Your task to perform on an android device: Show me popular games on the Play Store Image 0: 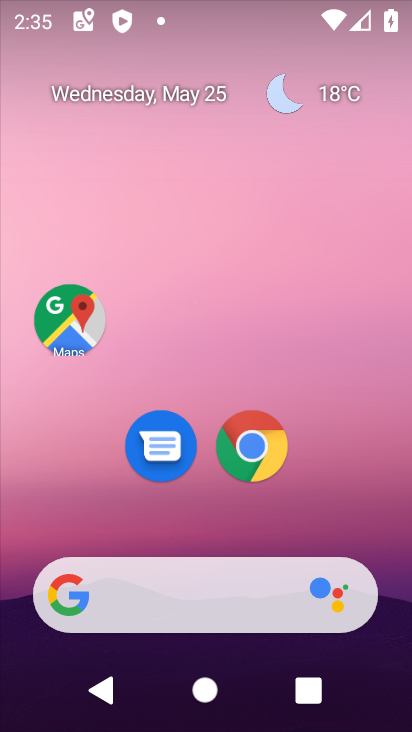
Step 0: drag from (202, 567) to (264, 161)
Your task to perform on an android device: Show me popular games on the Play Store Image 1: 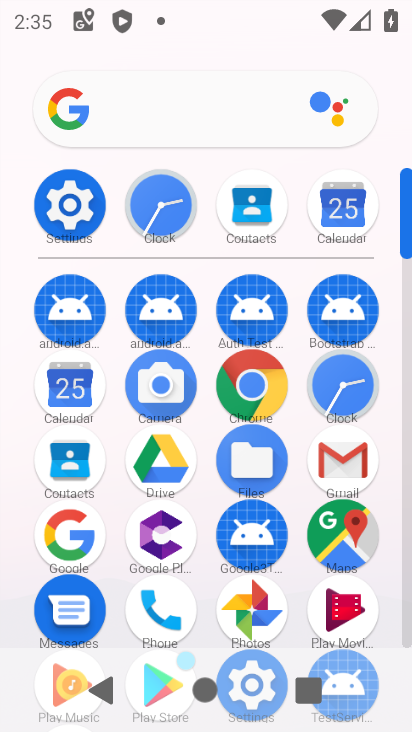
Step 1: drag from (200, 611) to (230, 400)
Your task to perform on an android device: Show me popular games on the Play Store Image 2: 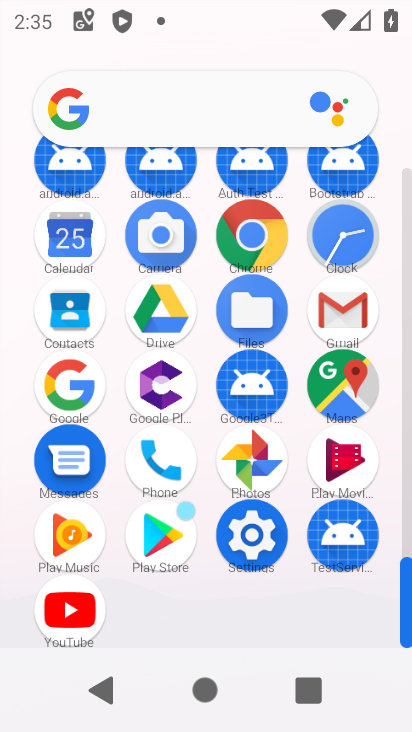
Step 2: click (160, 558)
Your task to perform on an android device: Show me popular games on the Play Store Image 3: 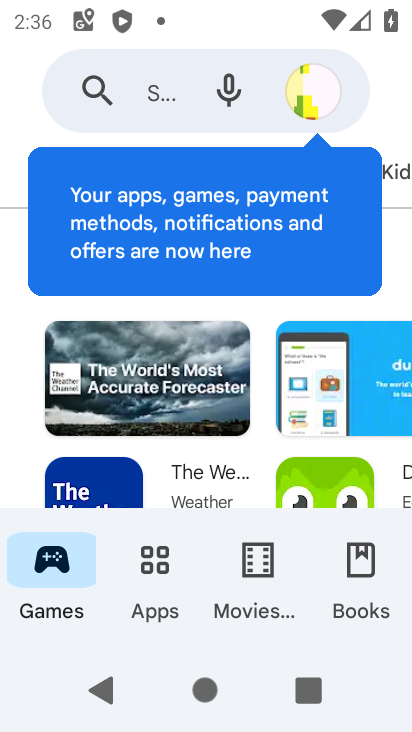
Step 3: drag from (269, 406) to (301, 0)
Your task to perform on an android device: Show me popular games on the Play Store Image 4: 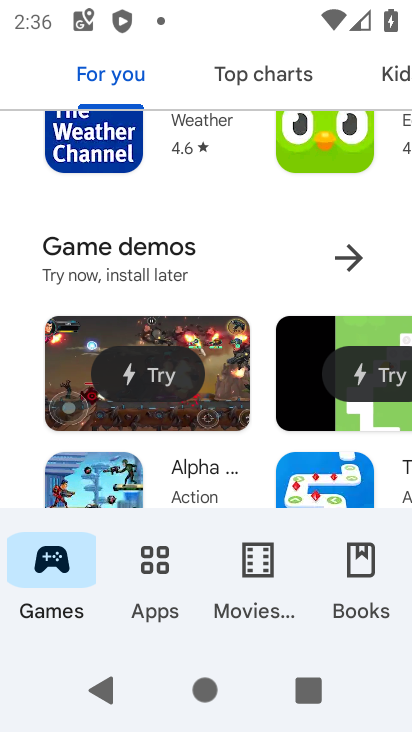
Step 4: drag from (279, 264) to (290, 10)
Your task to perform on an android device: Show me popular games on the Play Store Image 5: 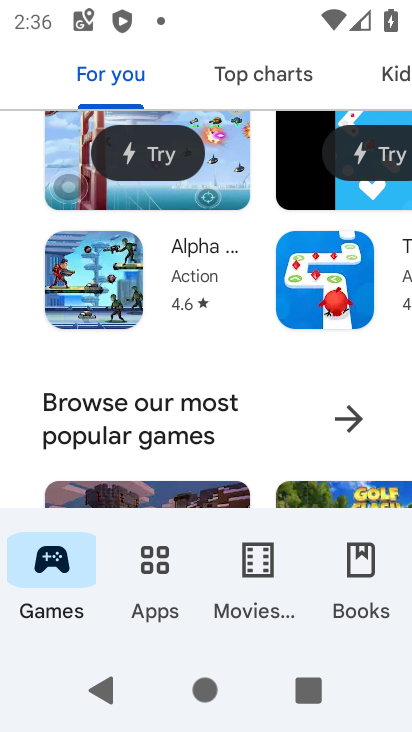
Step 5: click (349, 420)
Your task to perform on an android device: Show me popular games on the Play Store Image 6: 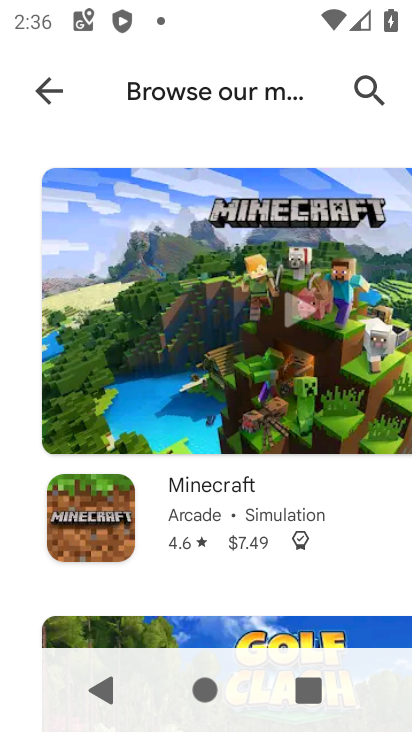
Step 6: task complete